Your task to perform on an android device: Show me recent news Image 0: 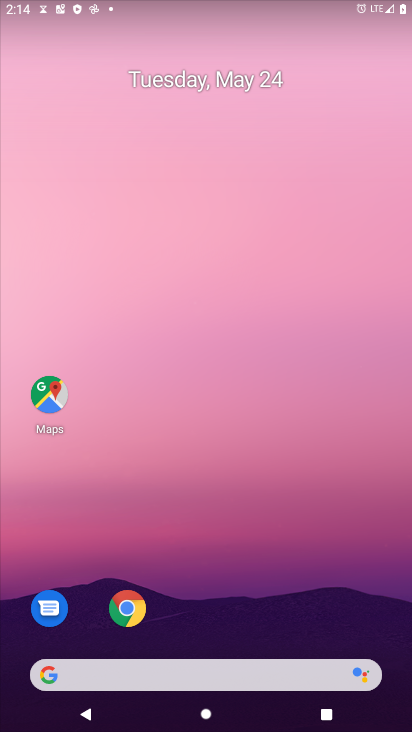
Step 0: drag from (292, 695) to (285, 98)
Your task to perform on an android device: Show me recent news Image 1: 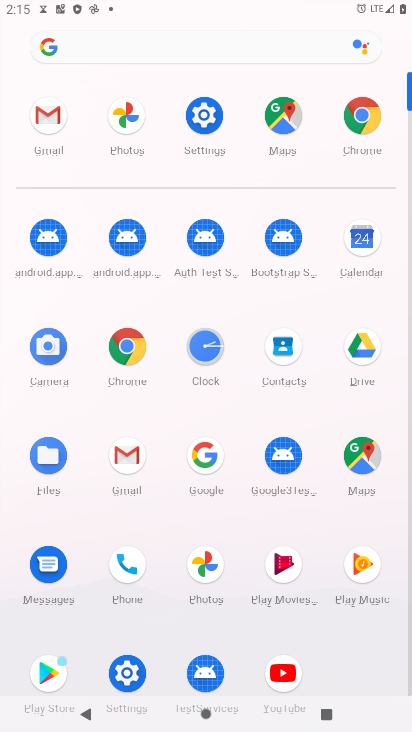
Step 1: click (98, 53)
Your task to perform on an android device: Show me recent news Image 2: 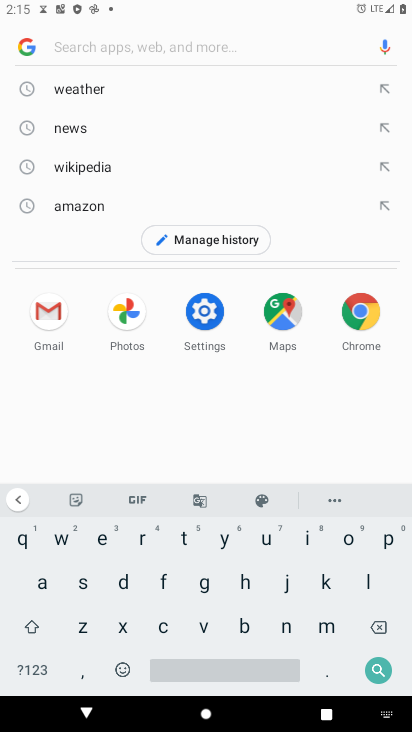
Step 2: click (131, 539)
Your task to perform on an android device: Show me recent news Image 3: 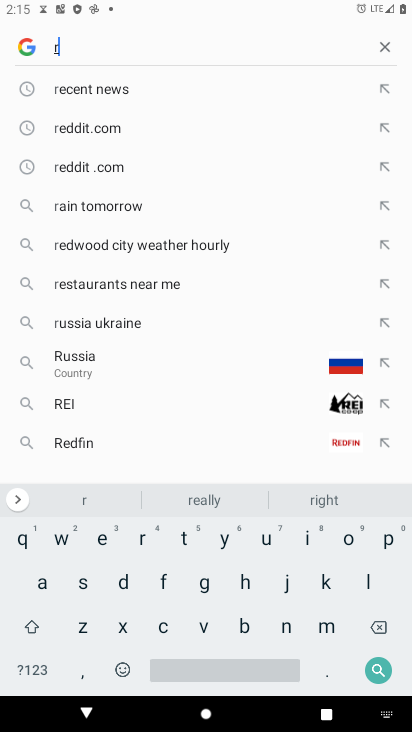
Step 3: click (67, 96)
Your task to perform on an android device: Show me recent news Image 4: 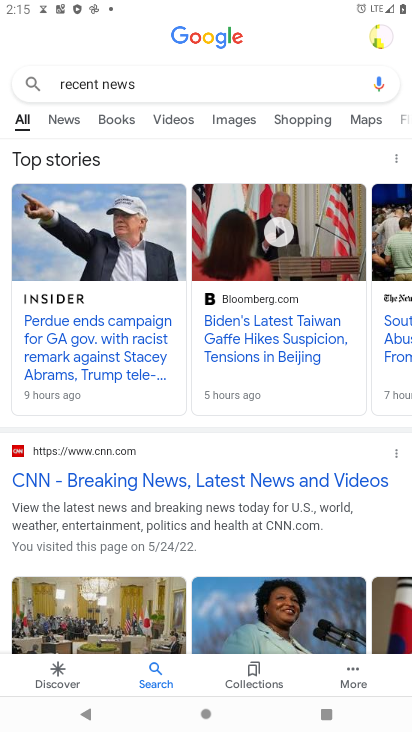
Step 4: task complete